Your task to perform on an android device: turn on the 24-hour format for clock Image 0: 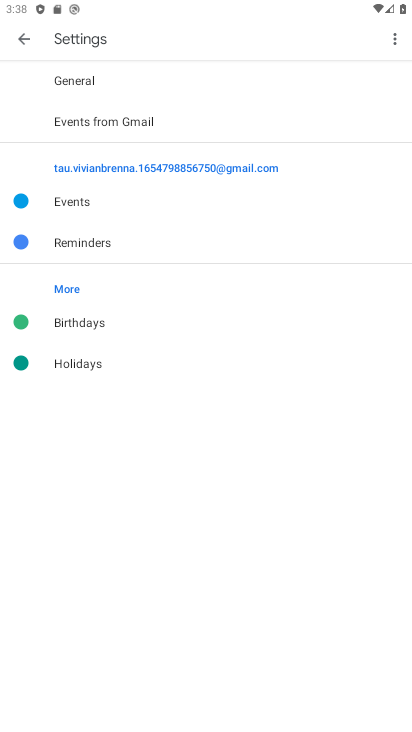
Step 0: press home button
Your task to perform on an android device: turn on the 24-hour format for clock Image 1: 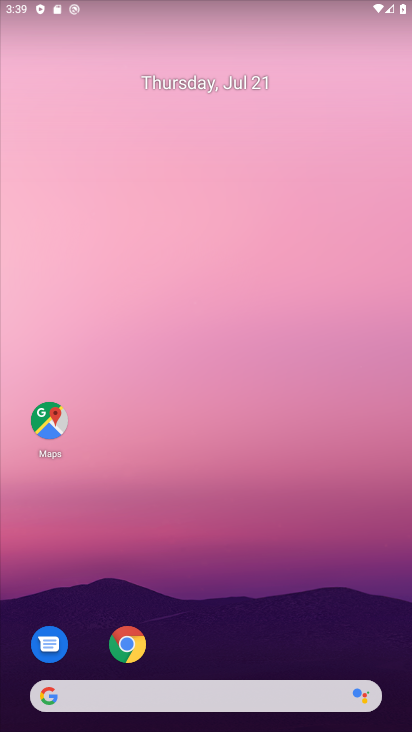
Step 1: drag from (312, 650) to (338, 6)
Your task to perform on an android device: turn on the 24-hour format for clock Image 2: 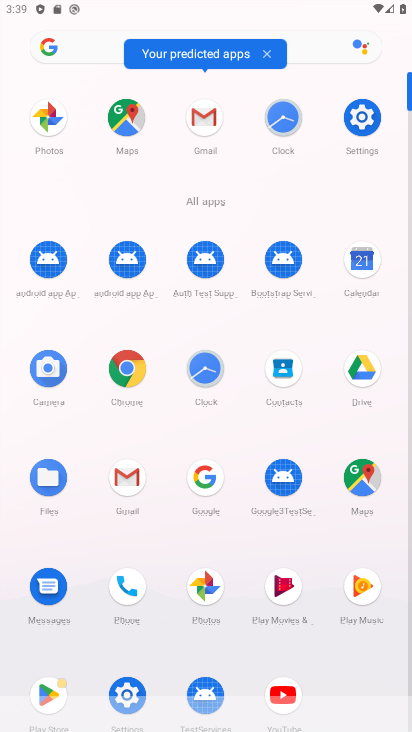
Step 2: click (291, 129)
Your task to perform on an android device: turn on the 24-hour format for clock Image 3: 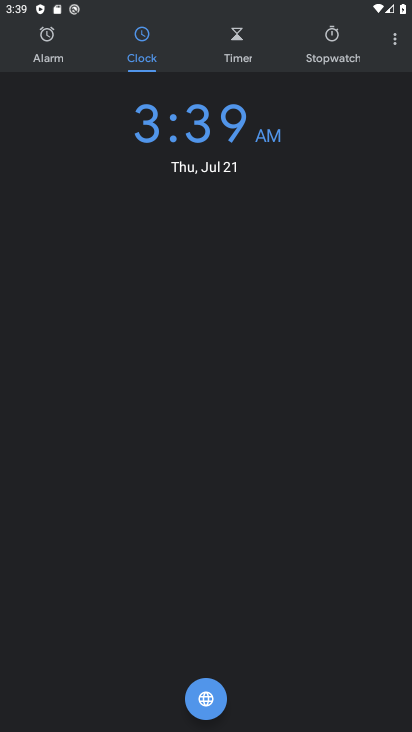
Step 3: click (395, 41)
Your task to perform on an android device: turn on the 24-hour format for clock Image 4: 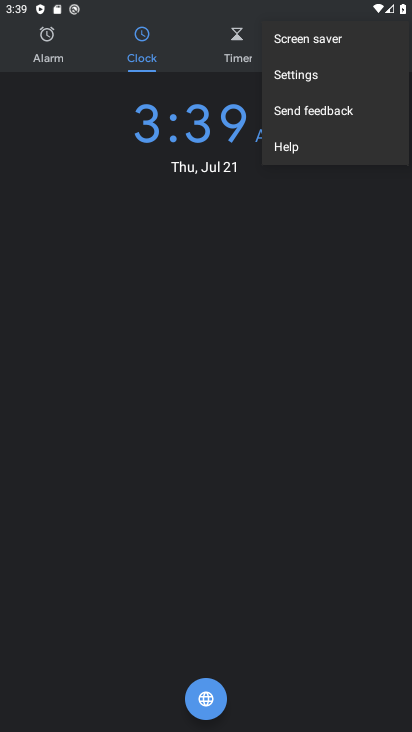
Step 4: click (321, 75)
Your task to perform on an android device: turn on the 24-hour format for clock Image 5: 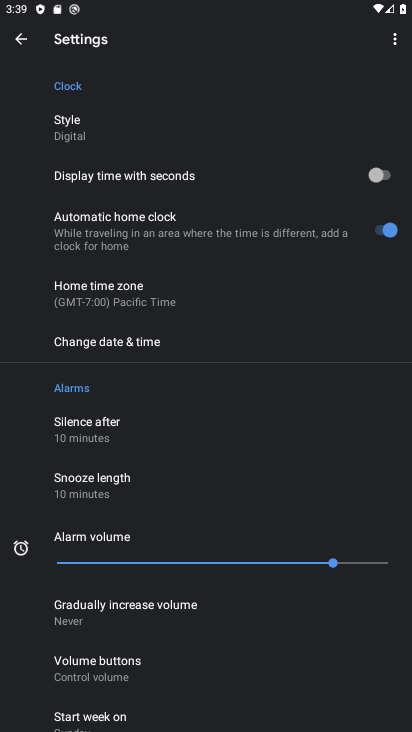
Step 5: click (150, 344)
Your task to perform on an android device: turn on the 24-hour format for clock Image 6: 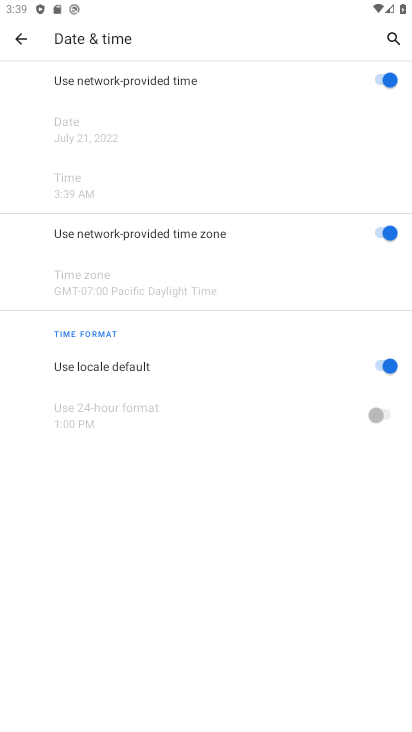
Step 6: click (391, 370)
Your task to perform on an android device: turn on the 24-hour format for clock Image 7: 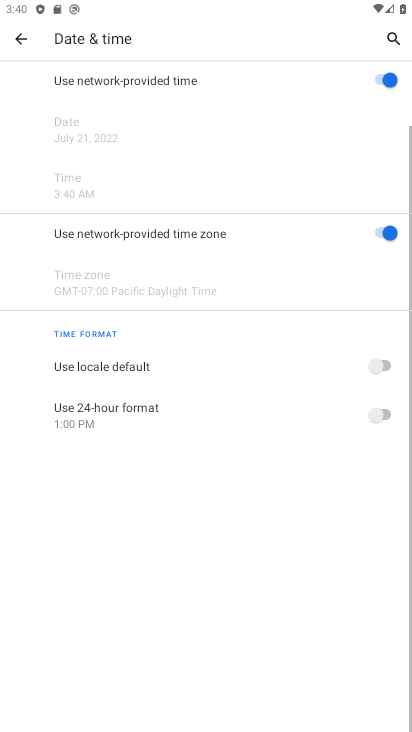
Step 7: click (382, 418)
Your task to perform on an android device: turn on the 24-hour format for clock Image 8: 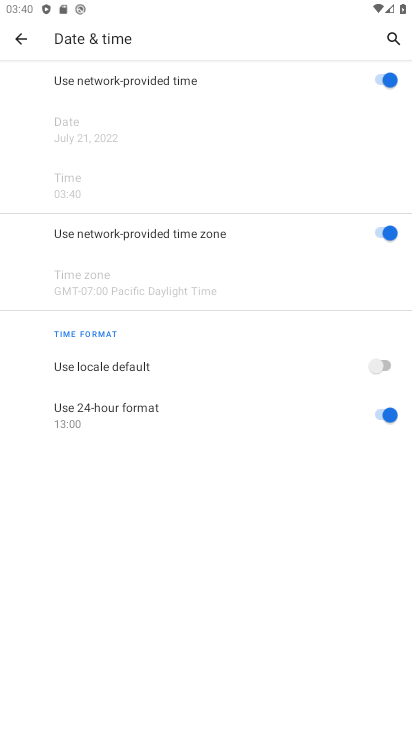
Step 8: task complete